Your task to perform on an android device: turn off improve location accuracy Image 0: 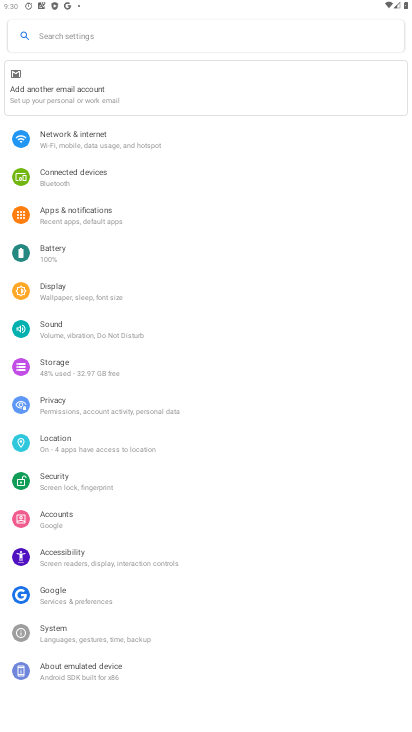
Step 0: click (101, 439)
Your task to perform on an android device: turn off improve location accuracy Image 1: 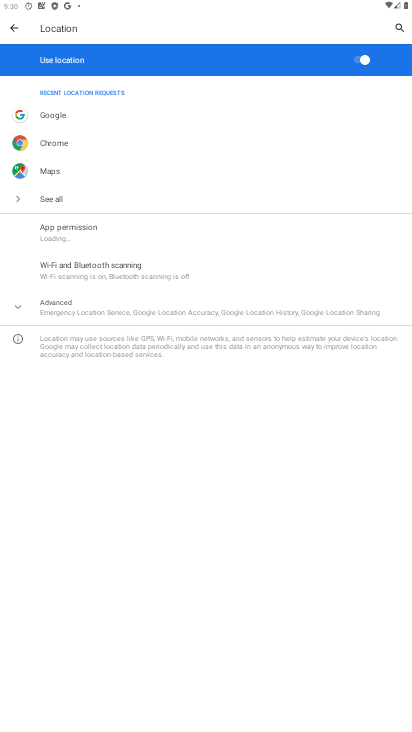
Step 1: drag from (146, 563) to (209, 142)
Your task to perform on an android device: turn off improve location accuracy Image 2: 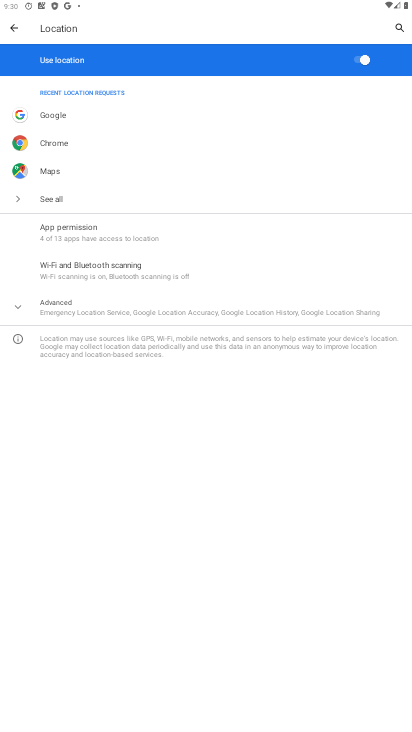
Step 2: click (83, 311)
Your task to perform on an android device: turn off improve location accuracy Image 3: 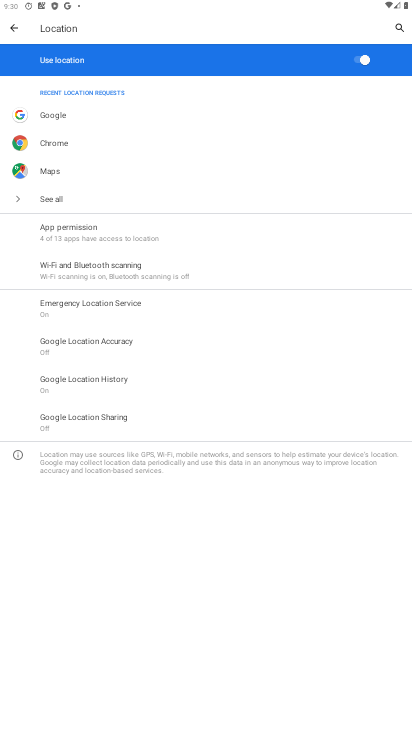
Step 3: click (97, 336)
Your task to perform on an android device: turn off improve location accuracy Image 4: 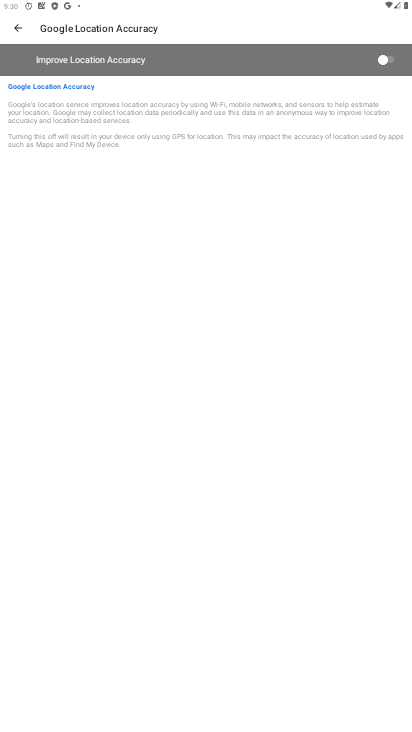
Step 4: task complete